Your task to perform on an android device: Go to Maps Image 0: 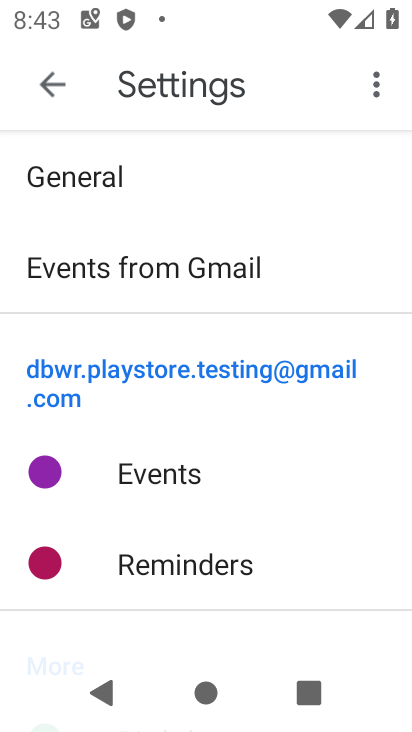
Step 0: drag from (131, 511) to (234, 180)
Your task to perform on an android device: Go to Maps Image 1: 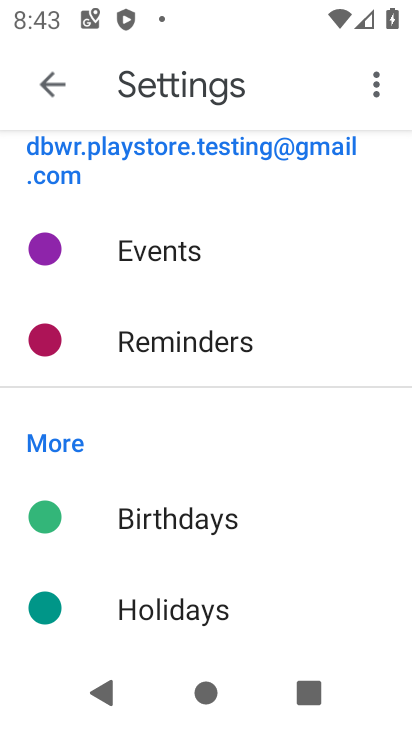
Step 1: press home button
Your task to perform on an android device: Go to Maps Image 2: 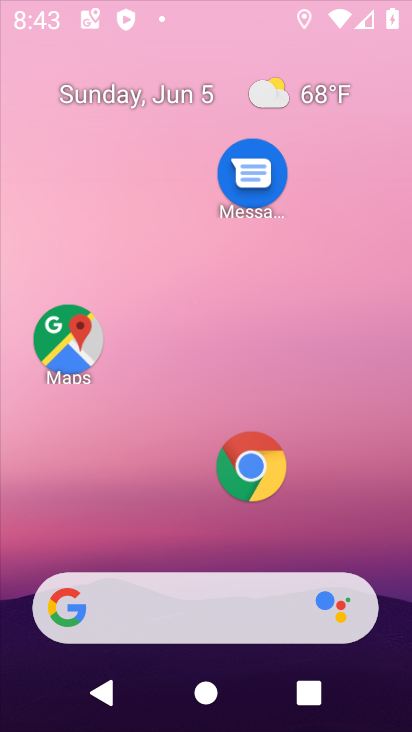
Step 2: drag from (217, 526) to (306, 215)
Your task to perform on an android device: Go to Maps Image 3: 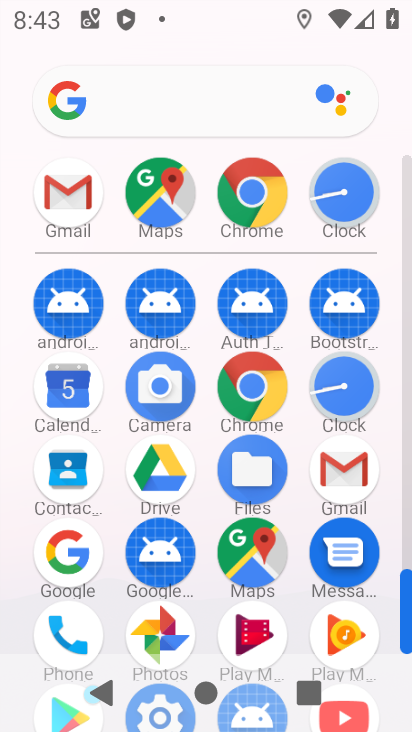
Step 3: click (254, 563)
Your task to perform on an android device: Go to Maps Image 4: 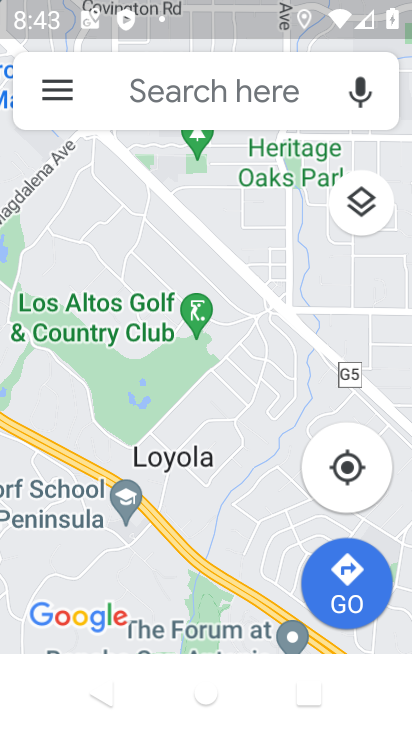
Step 4: task complete